Your task to perform on an android device: What's the weather going to be this weekend? Image 0: 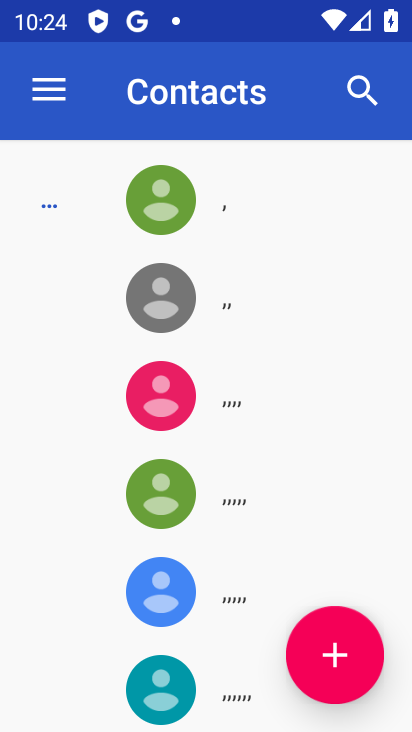
Step 0: press home button
Your task to perform on an android device: What's the weather going to be this weekend? Image 1: 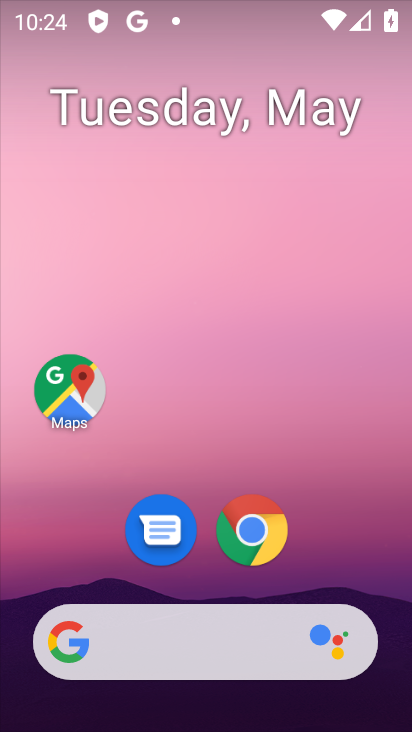
Step 1: drag from (310, 574) to (328, 212)
Your task to perform on an android device: What's the weather going to be this weekend? Image 2: 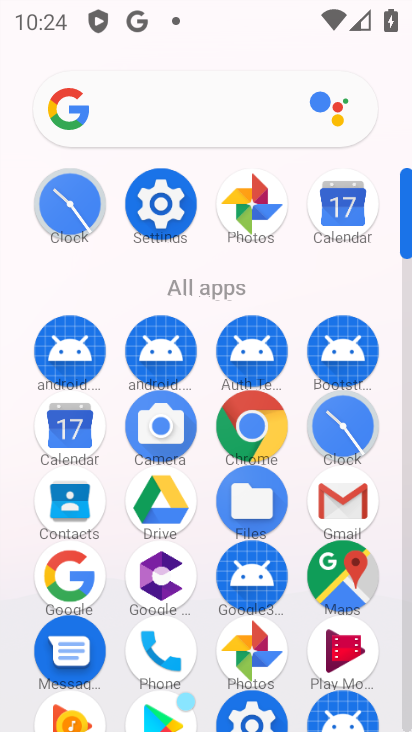
Step 2: drag from (85, 567) to (168, 353)
Your task to perform on an android device: What's the weather going to be this weekend? Image 3: 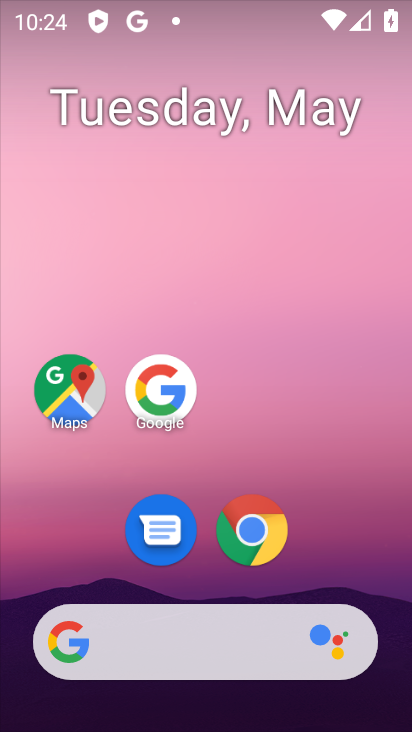
Step 3: click (172, 375)
Your task to perform on an android device: What's the weather going to be this weekend? Image 4: 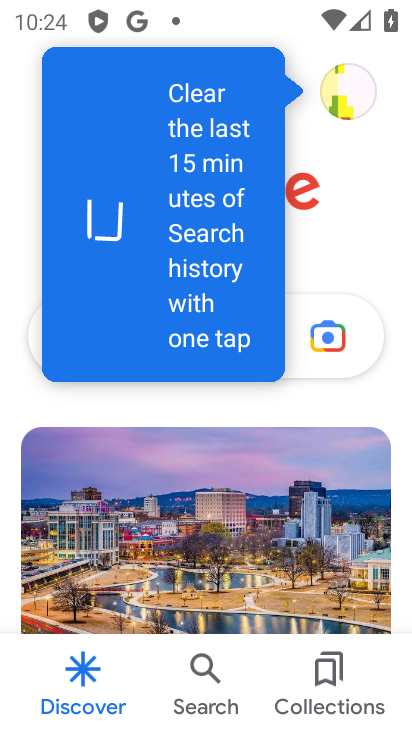
Step 4: click (382, 389)
Your task to perform on an android device: What's the weather going to be this weekend? Image 5: 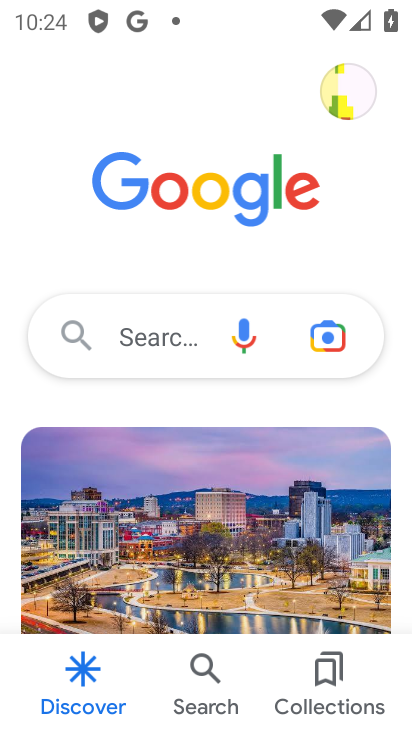
Step 5: click (142, 346)
Your task to perform on an android device: What's the weather going to be this weekend? Image 6: 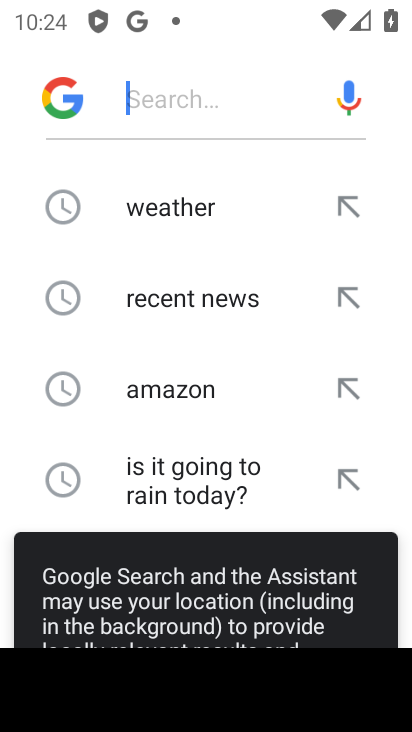
Step 6: click (213, 207)
Your task to perform on an android device: What's the weather going to be this weekend? Image 7: 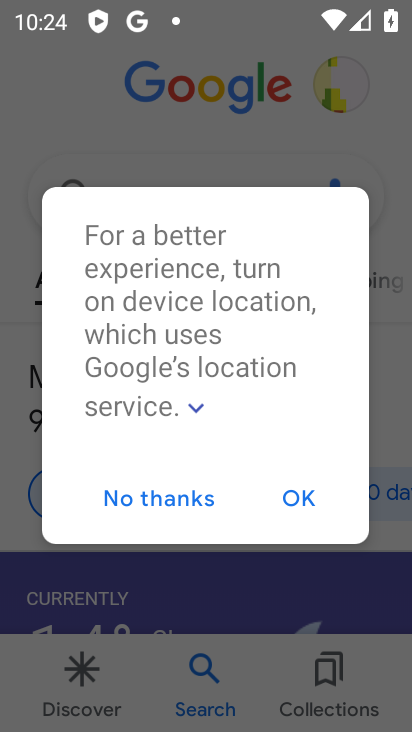
Step 7: click (313, 490)
Your task to perform on an android device: What's the weather going to be this weekend? Image 8: 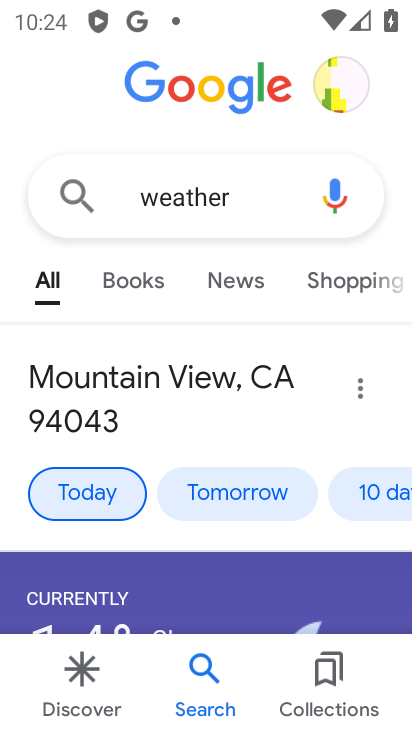
Step 8: click (367, 492)
Your task to perform on an android device: What's the weather going to be this weekend? Image 9: 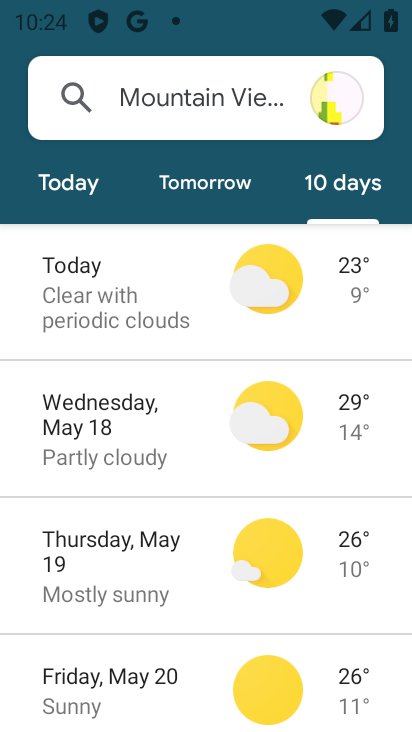
Step 9: drag from (141, 641) to (160, 293)
Your task to perform on an android device: What's the weather going to be this weekend? Image 10: 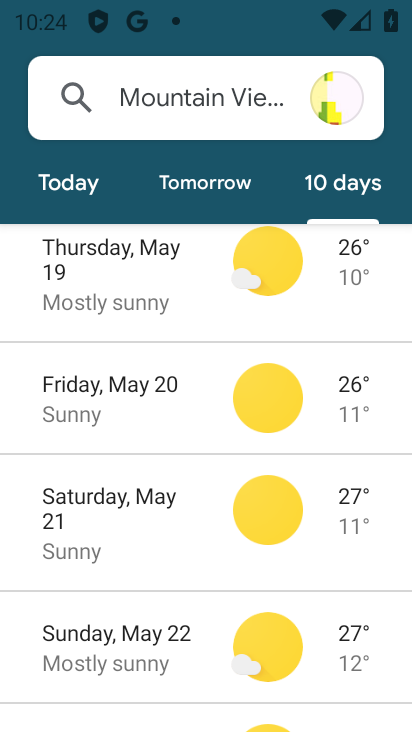
Step 10: click (111, 497)
Your task to perform on an android device: What's the weather going to be this weekend? Image 11: 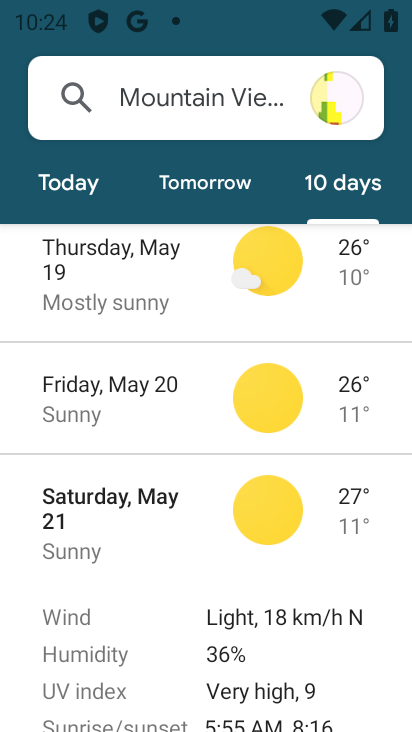
Step 11: task complete